Your task to perform on an android device: Go to battery settings Image 0: 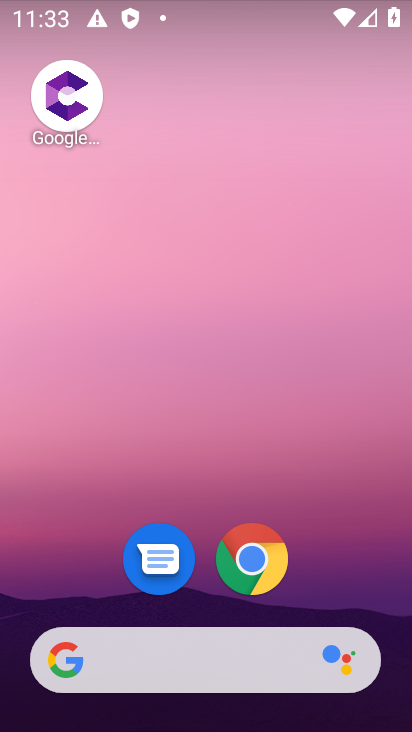
Step 0: drag from (199, 595) to (186, 0)
Your task to perform on an android device: Go to battery settings Image 1: 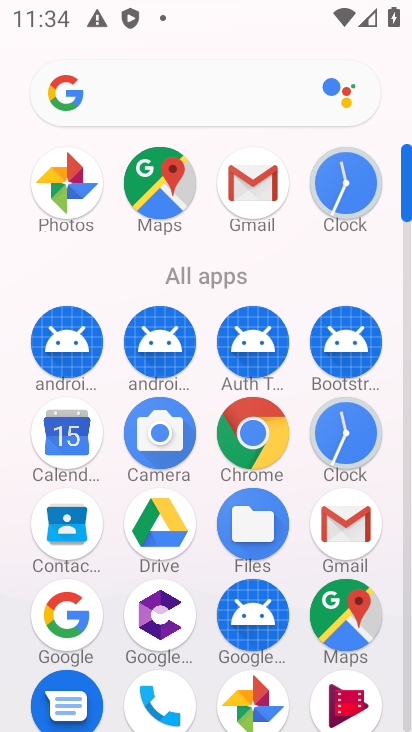
Step 1: drag from (279, 606) to (342, 173)
Your task to perform on an android device: Go to battery settings Image 2: 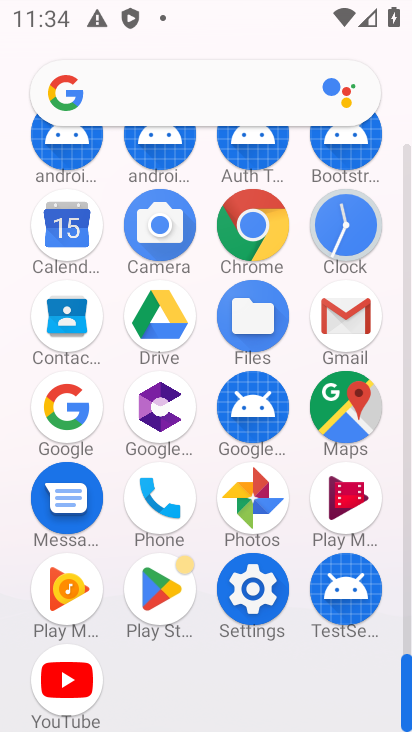
Step 2: click (266, 611)
Your task to perform on an android device: Go to battery settings Image 3: 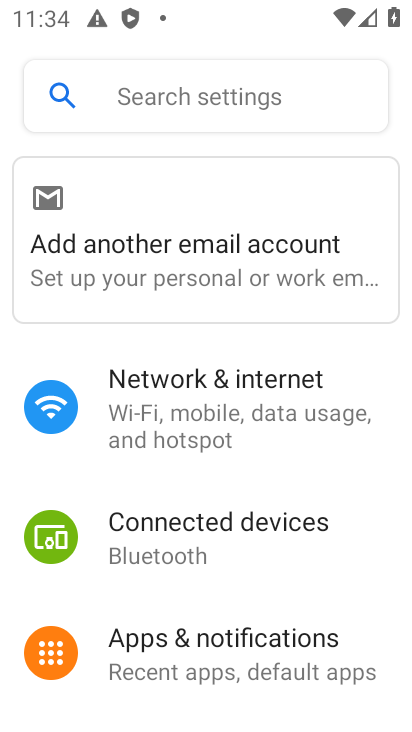
Step 3: drag from (198, 612) to (253, 274)
Your task to perform on an android device: Go to battery settings Image 4: 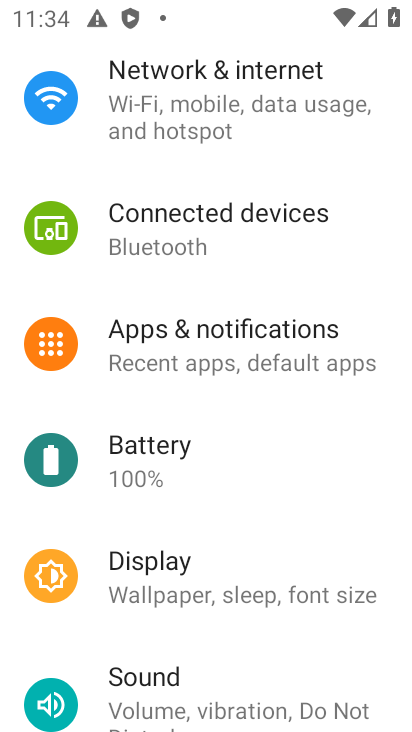
Step 4: click (160, 446)
Your task to perform on an android device: Go to battery settings Image 5: 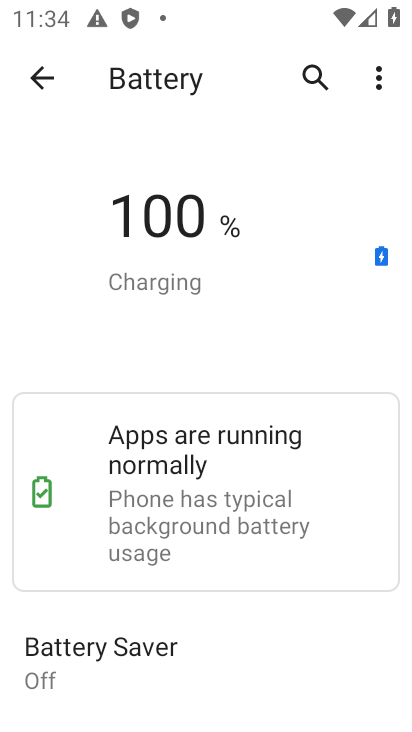
Step 5: task complete